Your task to perform on an android device: toggle show notifications on the lock screen Image 0: 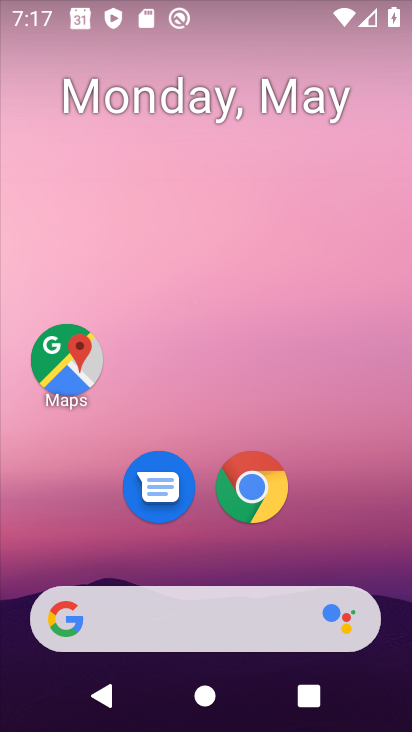
Step 0: drag from (195, 658) to (189, 73)
Your task to perform on an android device: toggle show notifications on the lock screen Image 1: 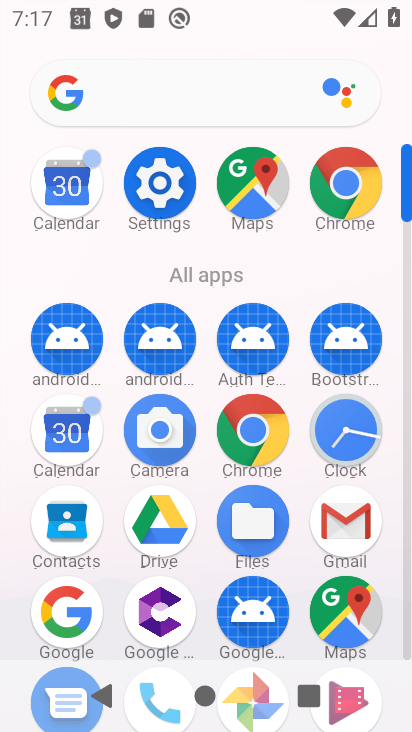
Step 1: click (150, 185)
Your task to perform on an android device: toggle show notifications on the lock screen Image 2: 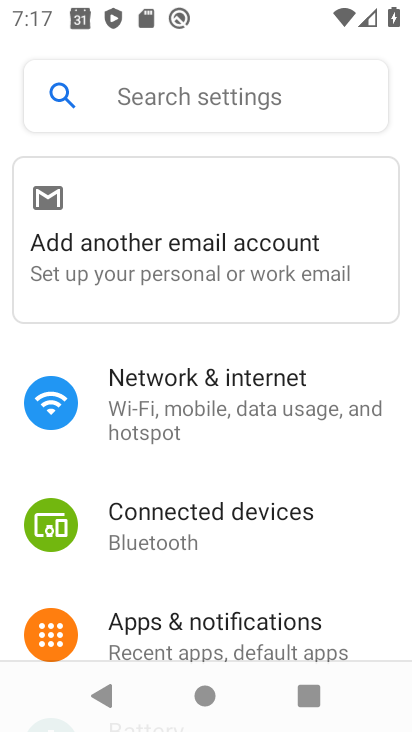
Step 2: click (164, 101)
Your task to perform on an android device: toggle show notifications on the lock screen Image 3: 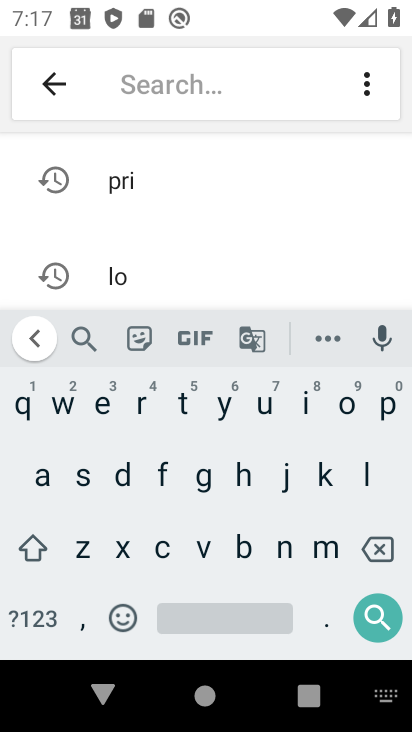
Step 3: click (285, 542)
Your task to perform on an android device: toggle show notifications on the lock screen Image 4: 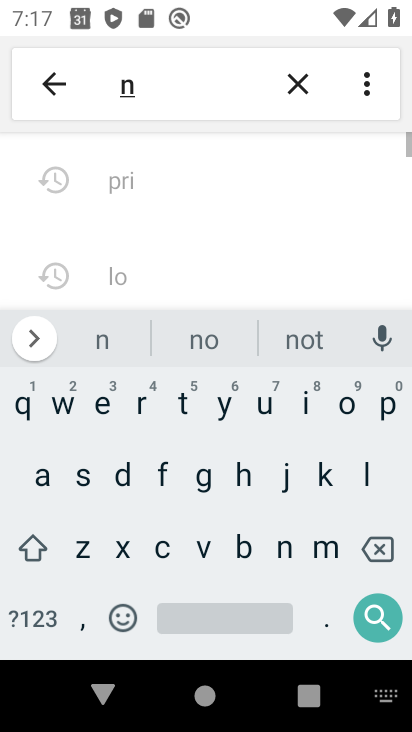
Step 4: click (339, 406)
Your task to perform on an android device: toggle show notifications on the lock screen Image 5: 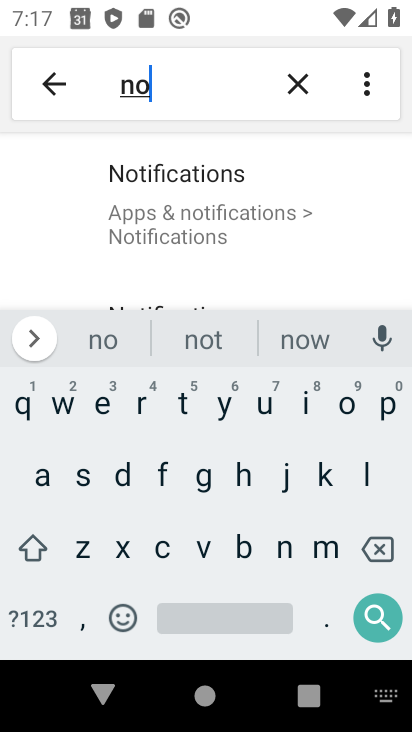
Step 5: click (159, 198)
Your task to perform on an android device: toggle show notifications on the lock screen Image 6: 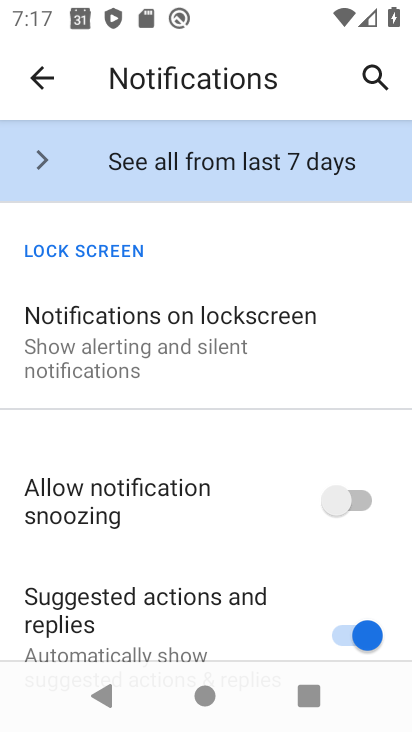
Step 6: click (118, 305)
Your task to perform on an android device: toggle show notifications on the lock screen Image 7: 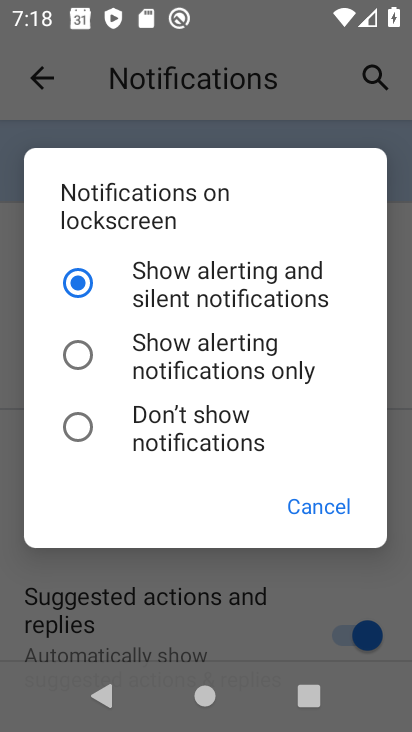
Step 7: task complete